Your task to perform on an android device: Set the phone to "Do not disturb". Image 0: 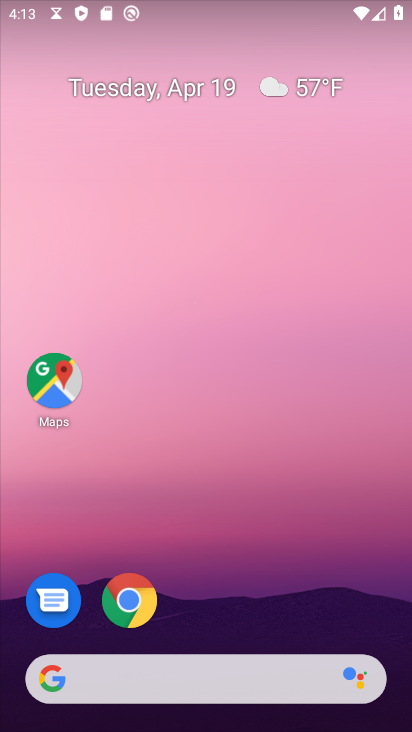
Step 0: drag from (320, 536) to (307, 119)
Your task to perform on an android device: Set the phone to "Do not disturb". Image 1: 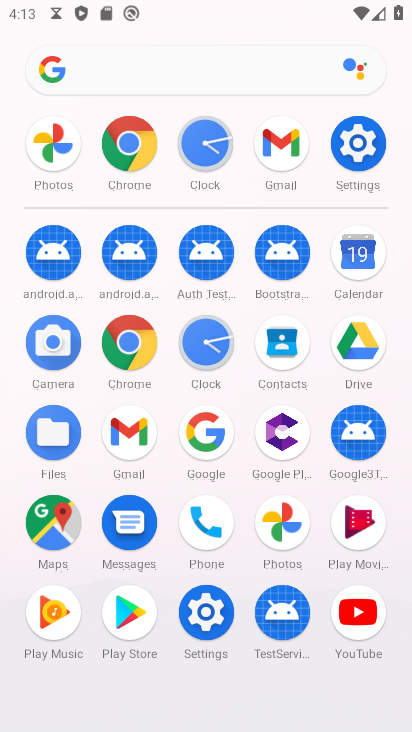
Step 1: click (370, 141)
Your task to perform on an android device: Set the phone to "Do not disturb". Image 2: 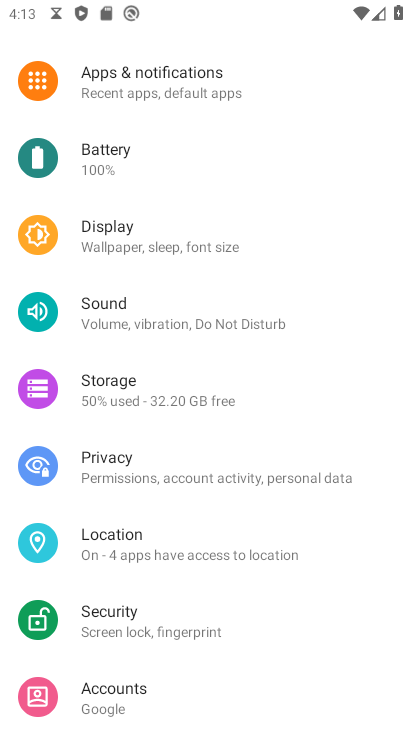
Step 2: click (284, 322)
Your task to perform on an android device: Set the phone to "Do not disturb". Image 3: 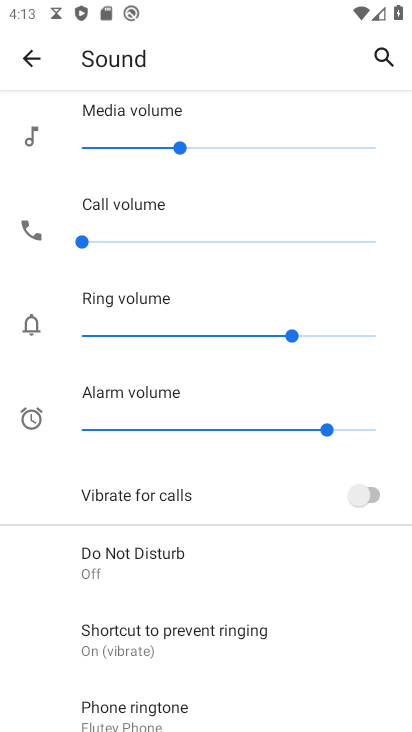
Step 3: click (277, 558)
Your task to perform on an android device: Set the phone to "Do not disturb". Image 4: 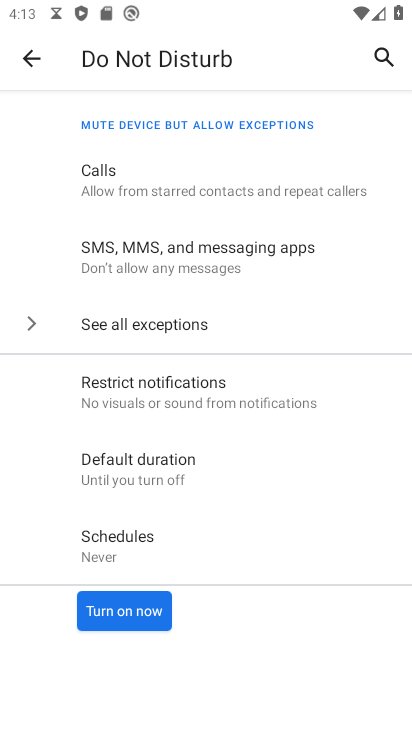
Step 4: click (108, 616)
Your task to perform on an android device: Set the phone to "Do not disturb". Image 5: 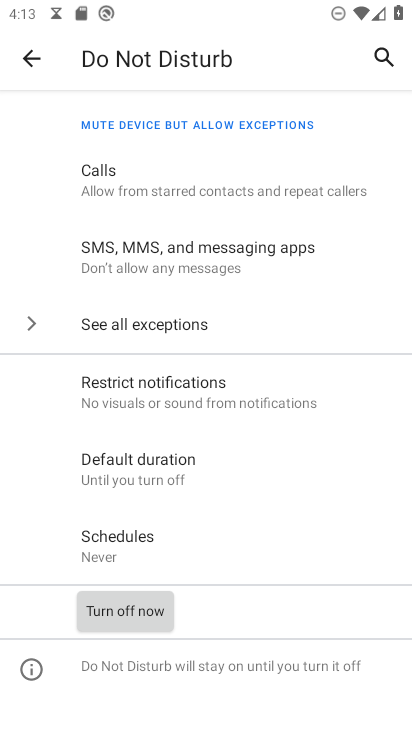
Step 5: task complete